Your task to perform on an android device: Add "jbl charge 4" to the cart on newegg.com, then select checkout. Image 0: 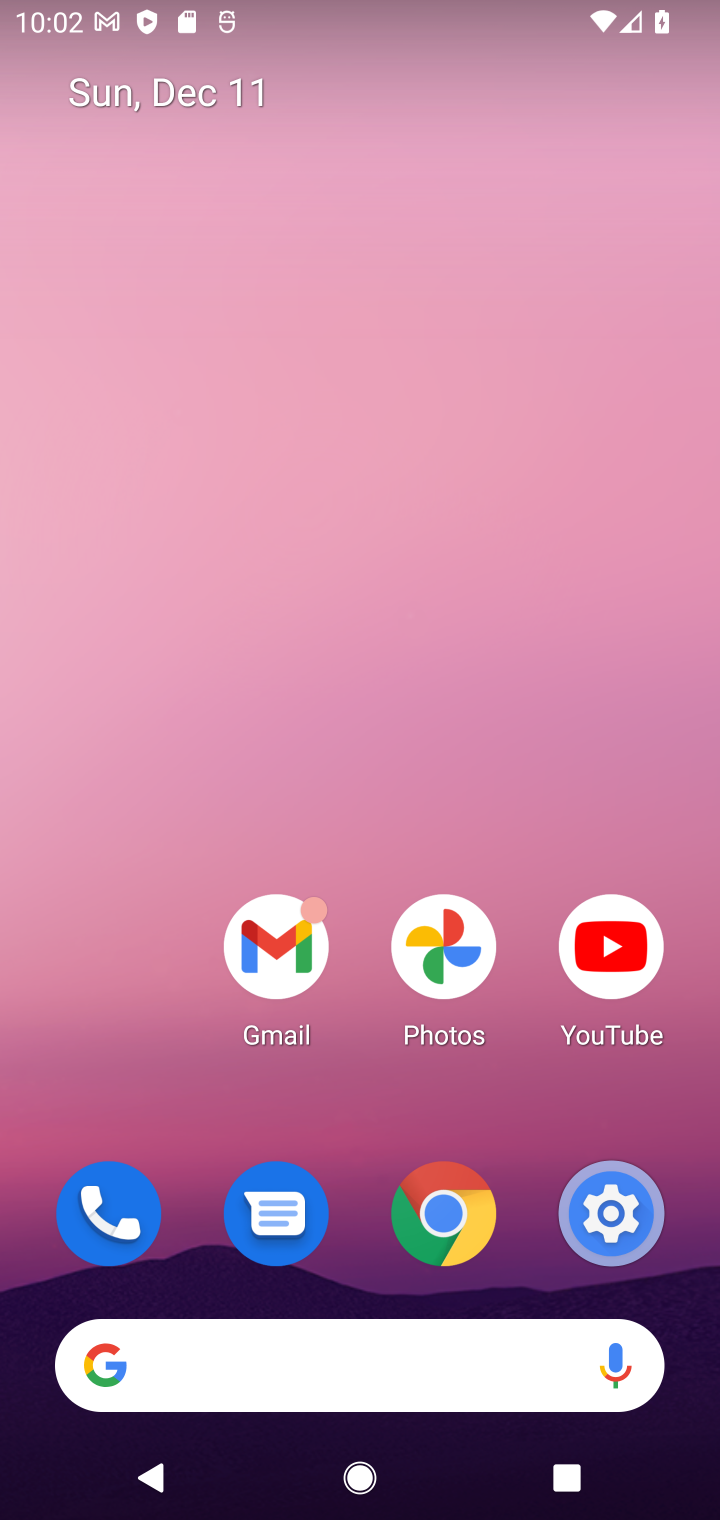
Step 0: click (458, 1374)
Your task to perform on an android device: Add "jbl charge 4" to the cart on newegg.com, then select checkout. Image 1: 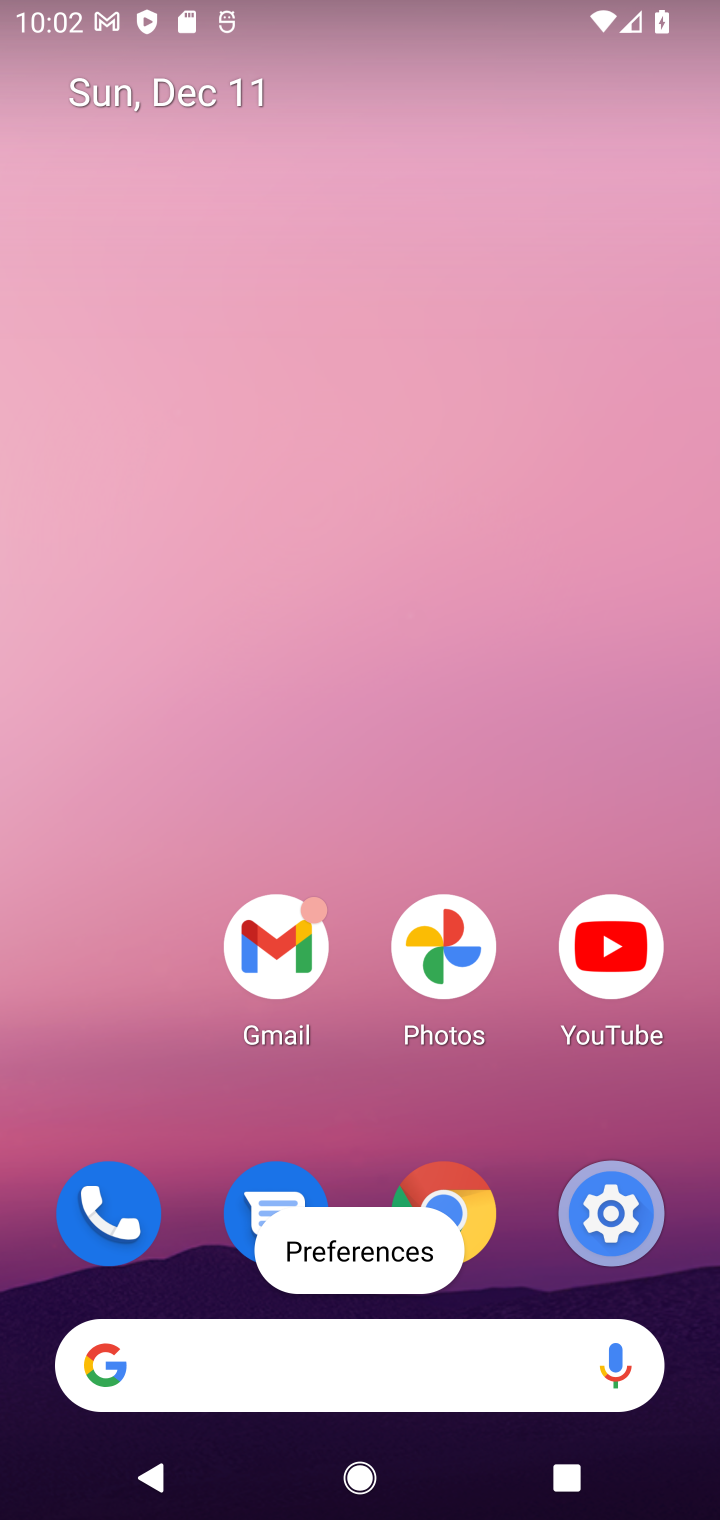
Step 1: type "newegg"
Your task to perform on an android device: Add "jbl charge 4" to the cart on newegg.com, then select checkout. Image 2: 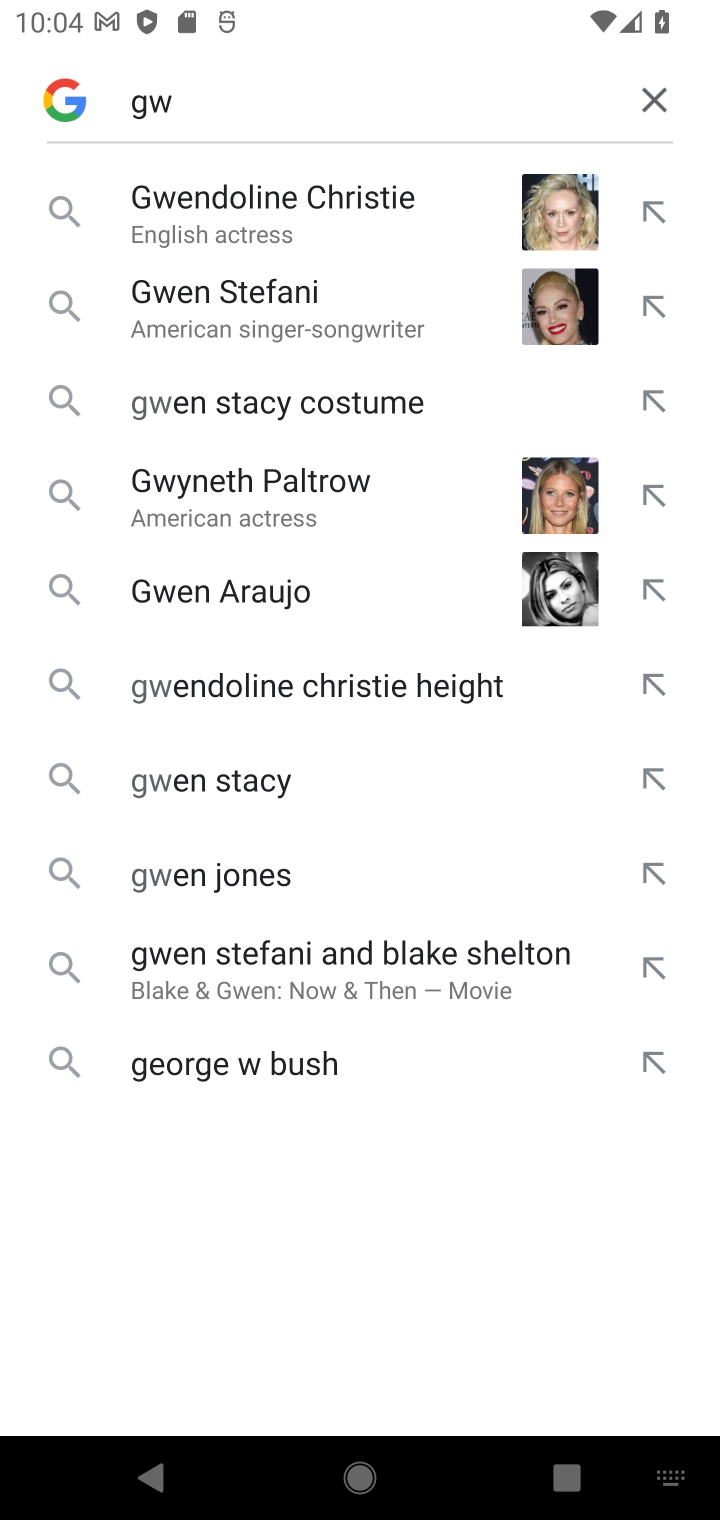
Step 2: click (665, 95)
Your task to perform on an android device: Add "jbl charge 4" to the cart on newegg.com, then select checkout. Image 3: 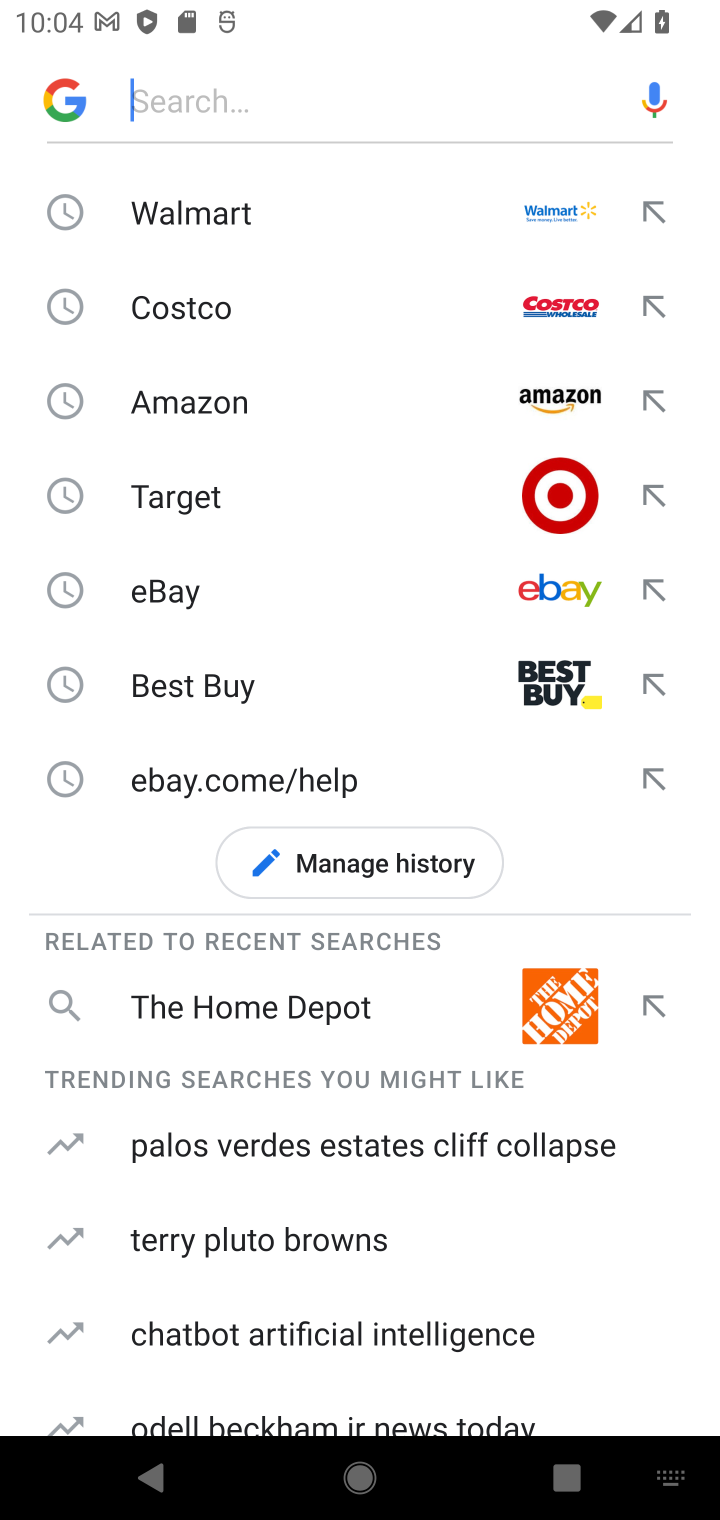
Step 3: type "newegg"
Your task to perform on an android device: Add "jbl charge 4" to the cart on newegg.com, then select checkout. Image 4: 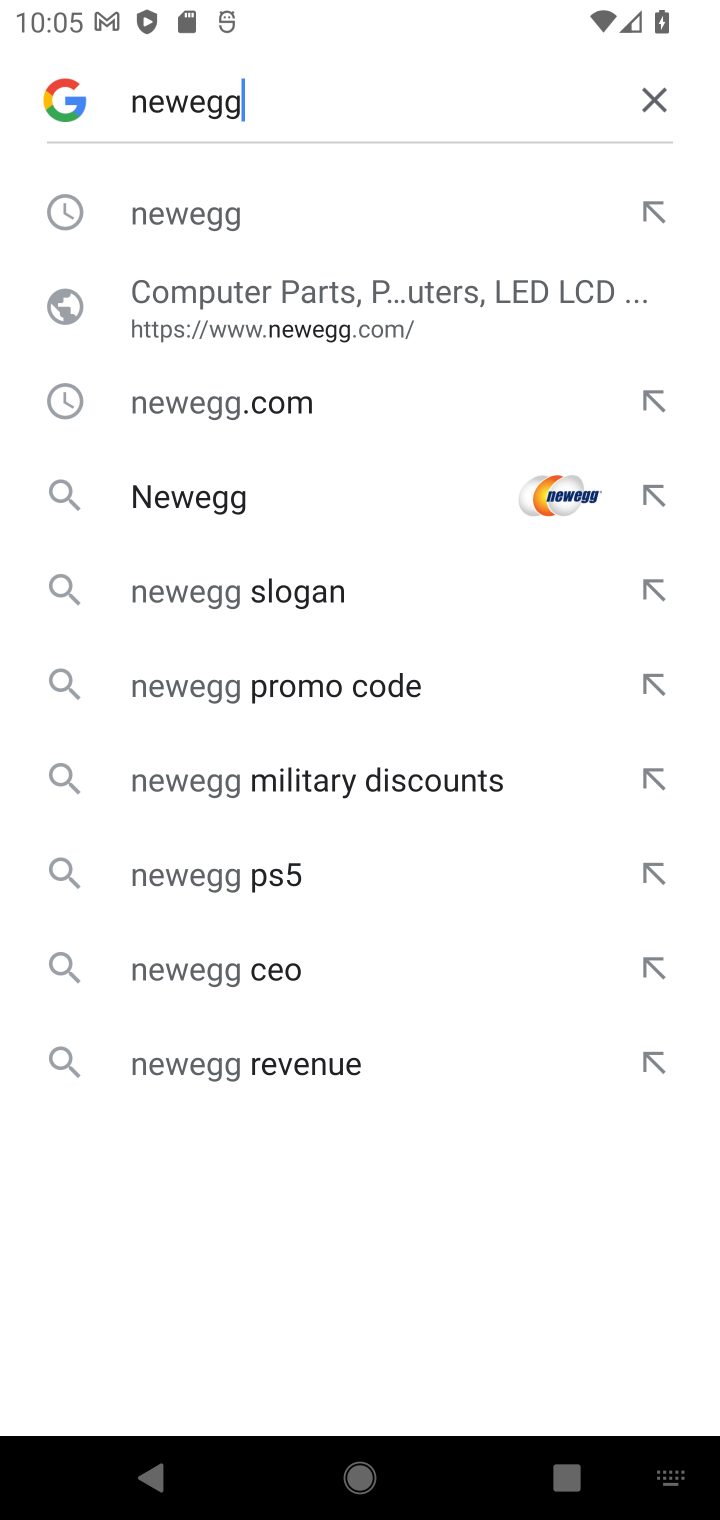
Step 4: click (168, 223)
Your task to perform on an android device: Add "jbl charge 4" to the cart on newegg.com, then select checkout. Image 5: 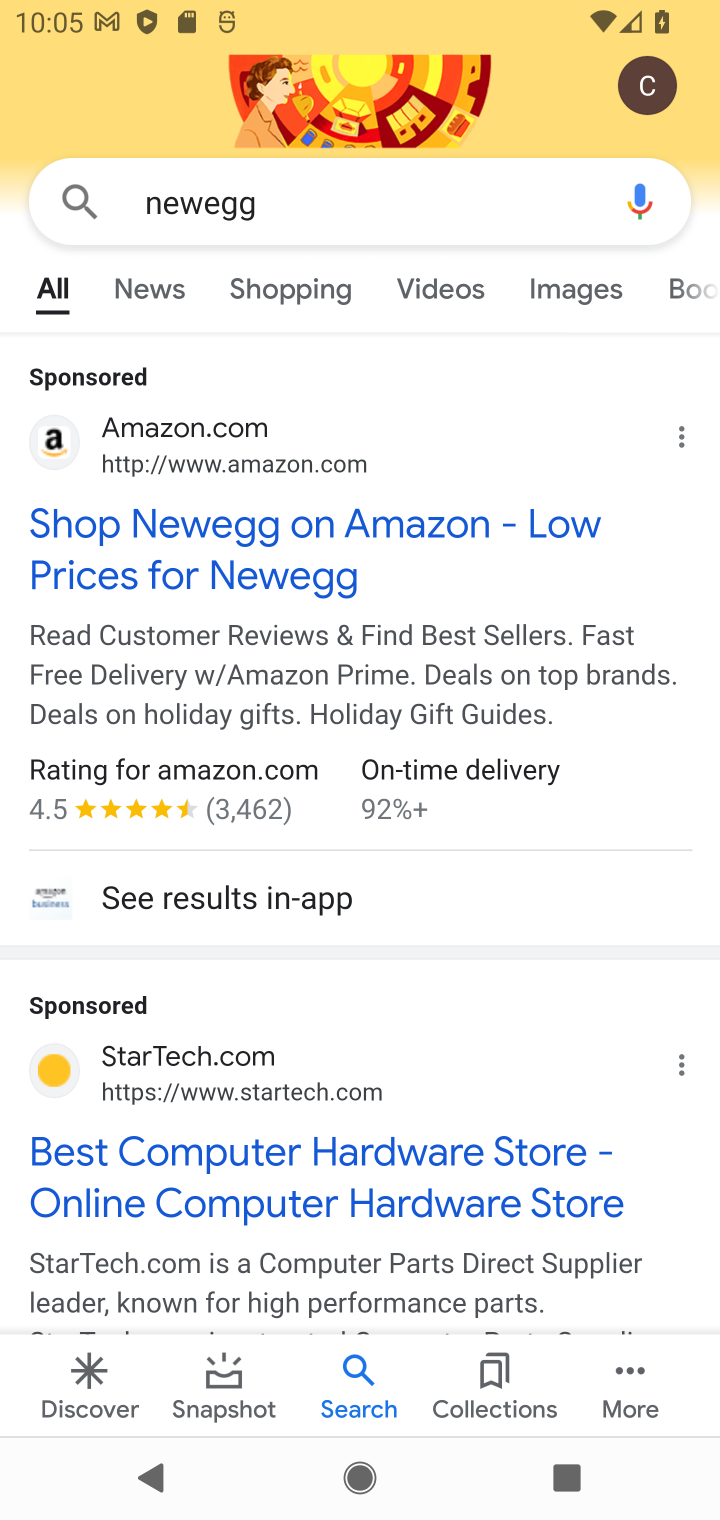
Step 5: click (248, 594)
Your task to perform on an android device: Add "jbl charge 4" to the cart on newegg.com, then select checkout. Image 6: 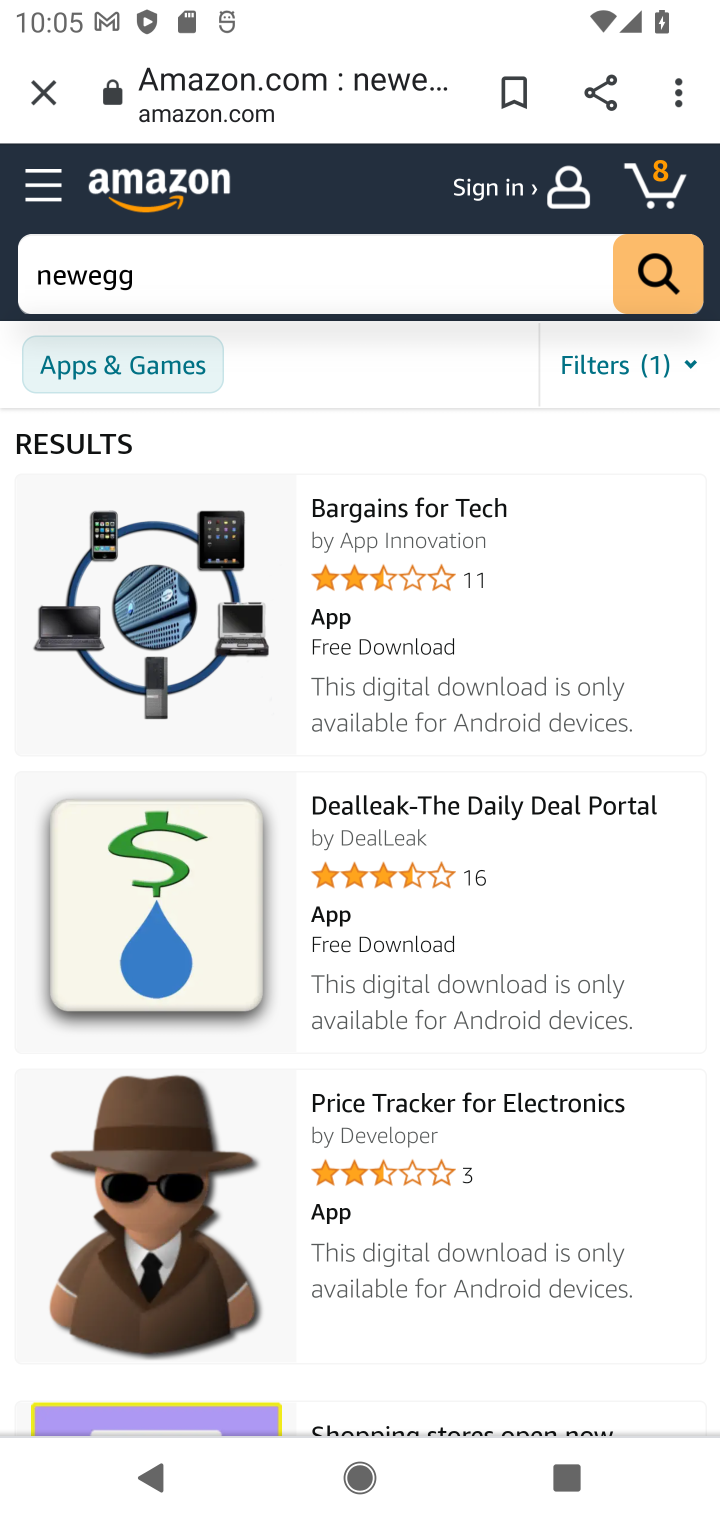
Step 6: task complete